Your task to perform on an android device: clear history in the chrome app Image 0: 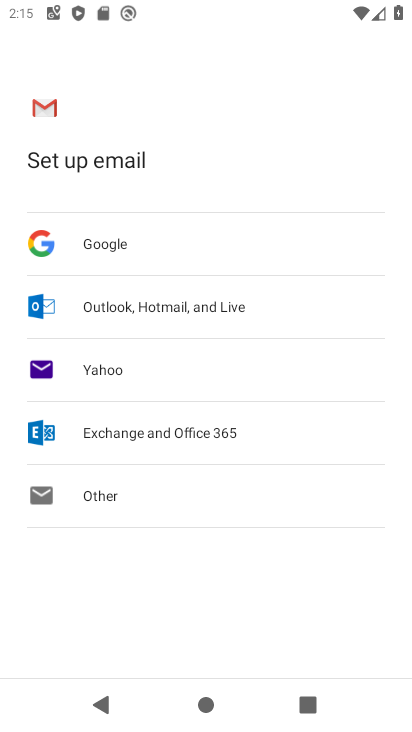
Step 0: press home button
Your task to perform on an android device: clear history in the chrome app Image 1: 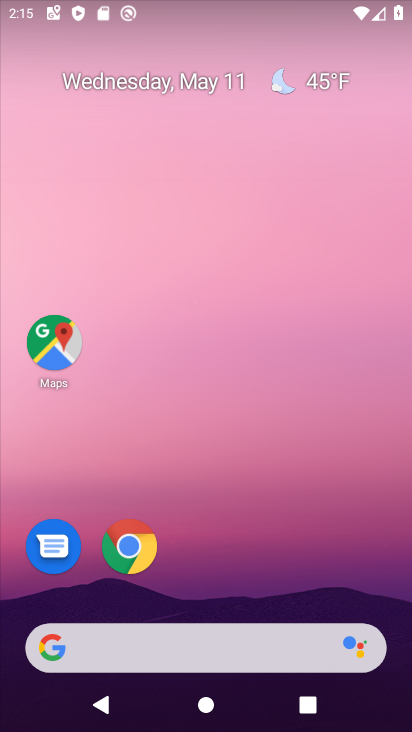
Step 1: click (135, 556)
Your task to perform on an android device: clear history in the chrome app Image 2: 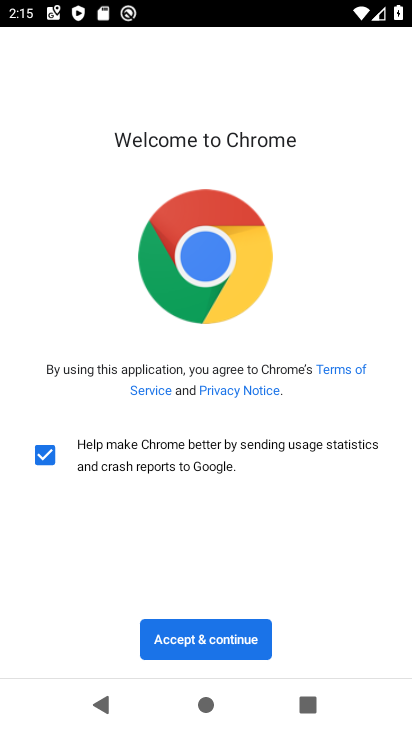
Step 2: click (206, 644)
Your task to perform on an android device: clear history in the chrome app Image 3: 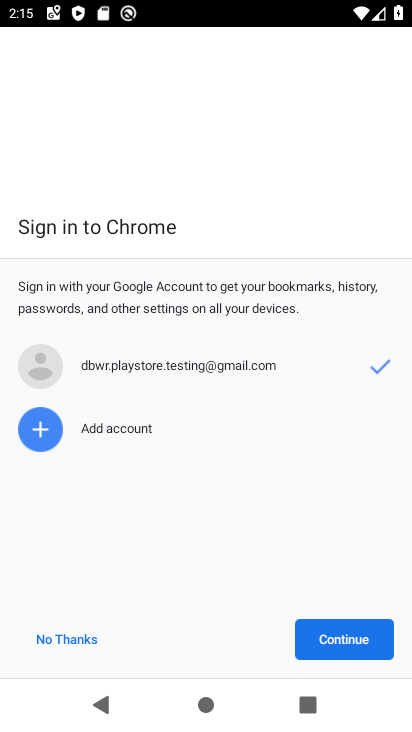
Step 3: click (345, 656)
Your task to perform on an android device: clear history in the chrome app Image 4: 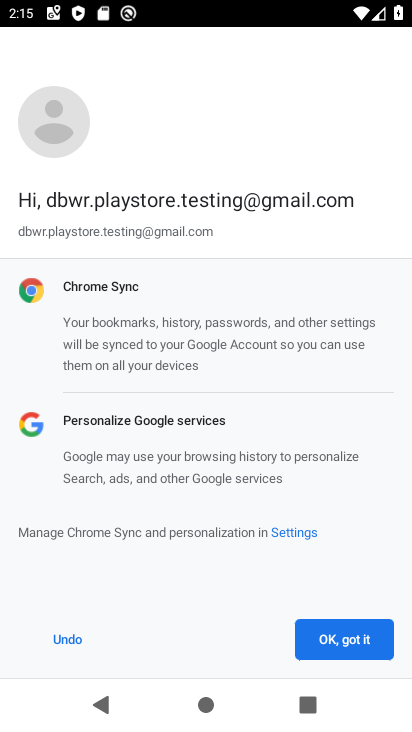
Step 4: click (343, 643)
Your task to perform on an android device: clear history in the chrome app Image 5: 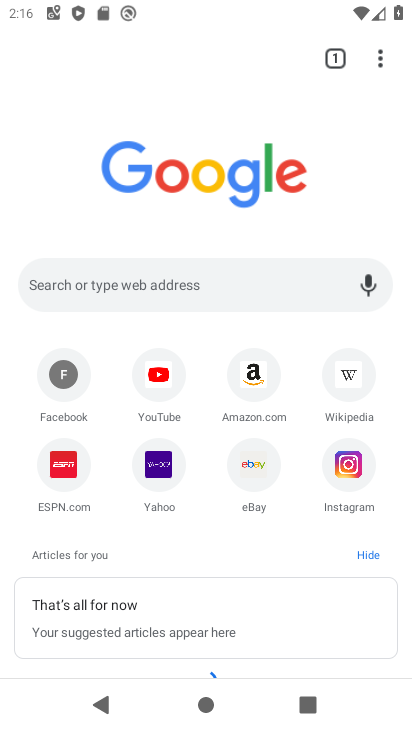
Step 5: click (372, 48)
Your task to perform on an android device: clear history in the chrome app Image 6: 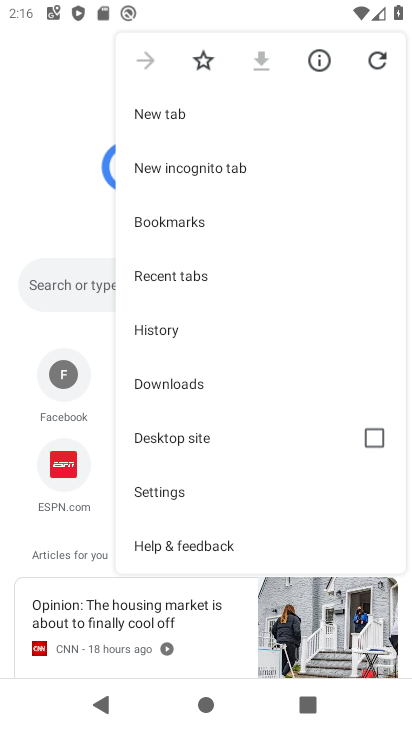
Step 6: click (169, 330)
Your task to perform on an android device: clear history in the chrome app Image 7: 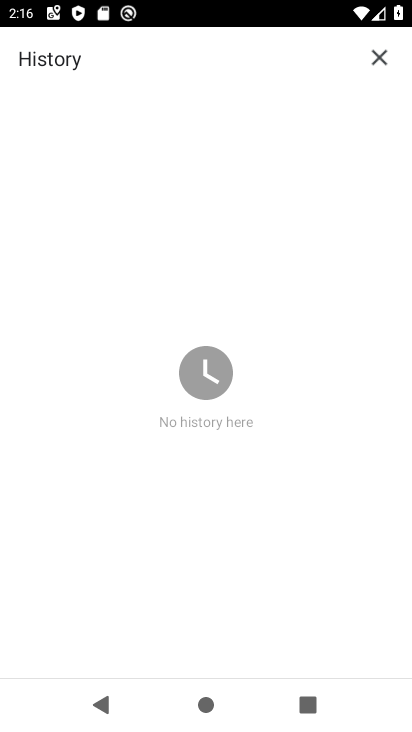
Step 7: task complete